Your task to perform on an android device: Go to Amazon Image 0: 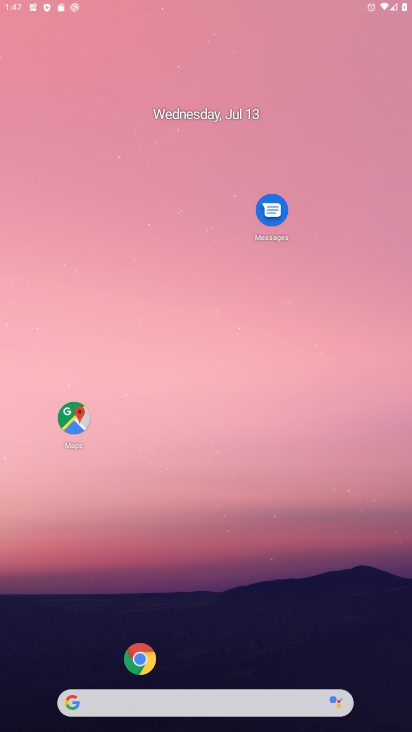
Step 0: click (76, 408)
Your task to perform on an android device: Go to Amazon Image 1: 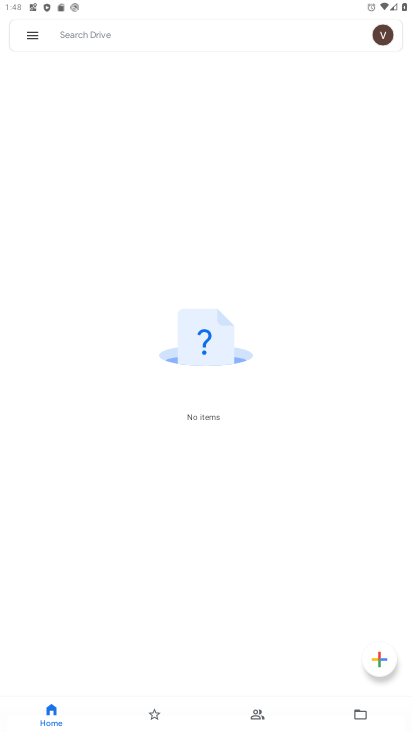
Step 1: press home button
Your task to perform on an android device: Go to Amazon Image 2: 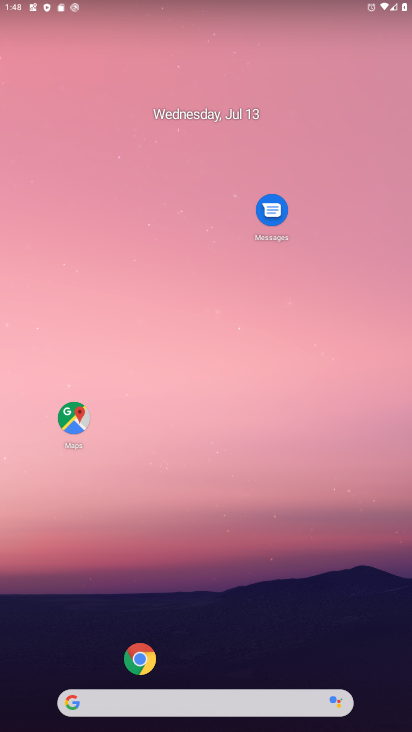
Step 2: click (88, 701)
Your task to perform on an android device: Go to Amazon Image 3: 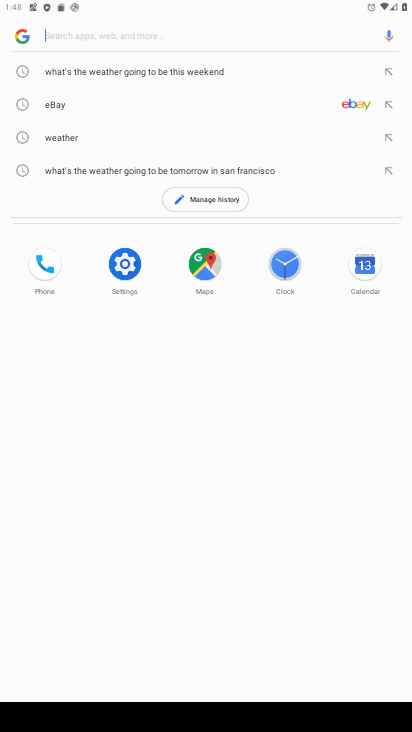
Step 3: click (60, 38)
Your task to perform on an android device: Go to Amazon Image 4: 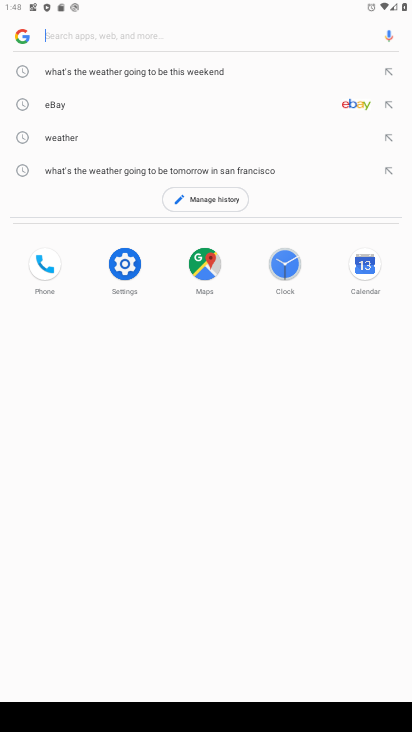
Step 4: type "Amazon"
Your task to perform on an android device: Go to Amazon Image 5: 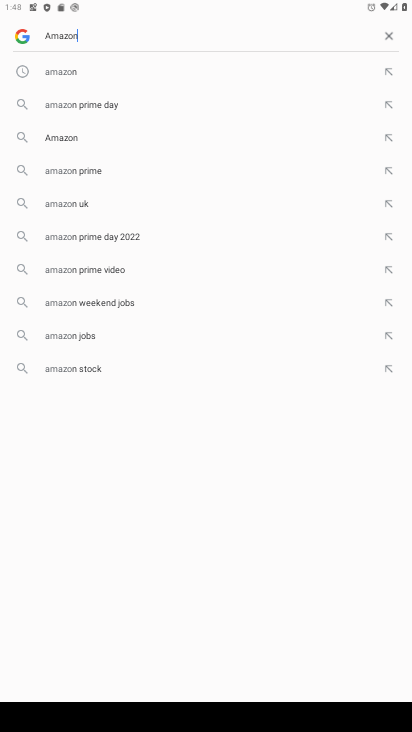
Step 5: type ""
Your task to perform on an android device: Go to Amazon Image 6: 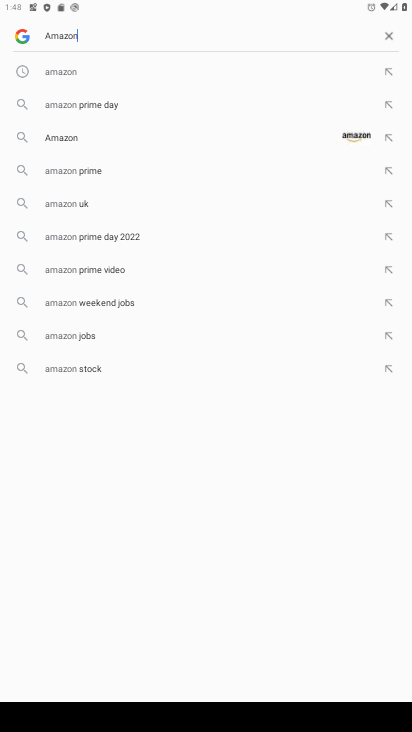
Step 6: click (60, 55)
Your task to perform on an android device: Go to Amazon Image 7: 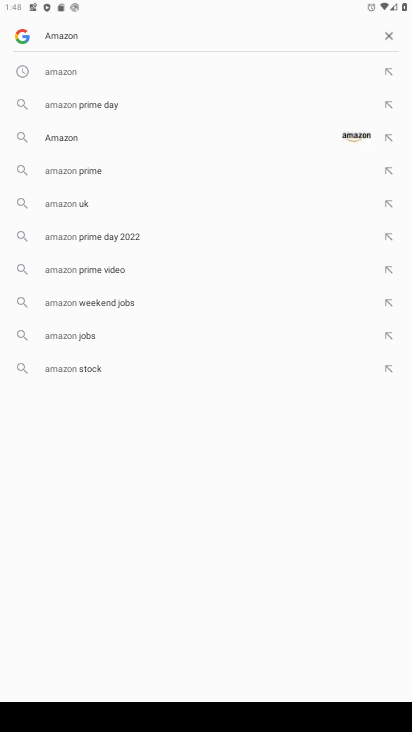
Step 7: click (56, 67)
Your task to perform on an android device: Go to Amazon Image 8: 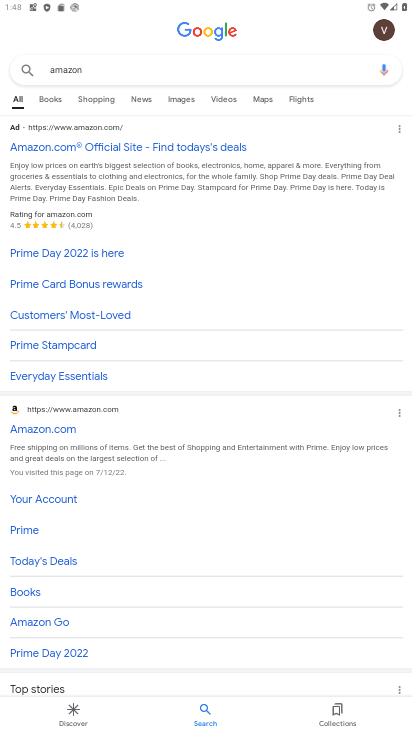
Step 8: task complete